Your task to perform on an android device: Go to wifi settings Image 0: 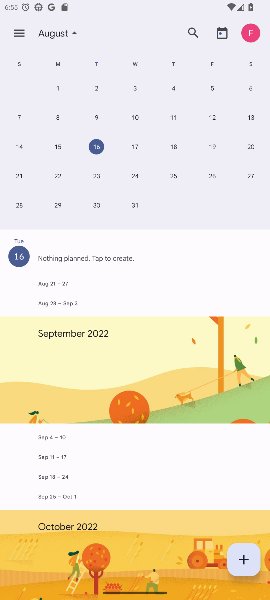
Step 0: press home button
Your task to perform on an android device: Go to wifi settings Image 1: 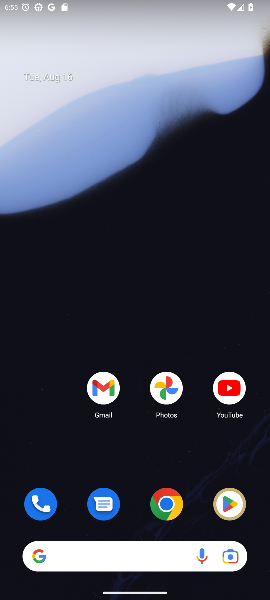
Step 1: drag from (5, 575) to (151, 217)
Your task to perform on an android device: Go to wifi settings Image 2: 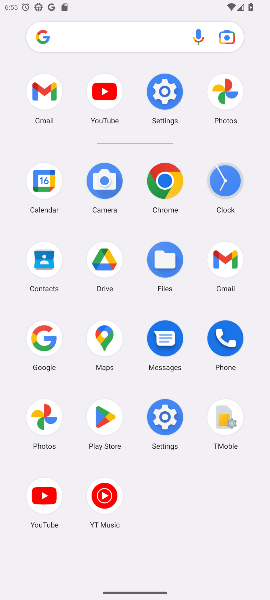
Step 2: click (161, 405)
Your task to perform on an android device: Go to wifi settings Image 3: 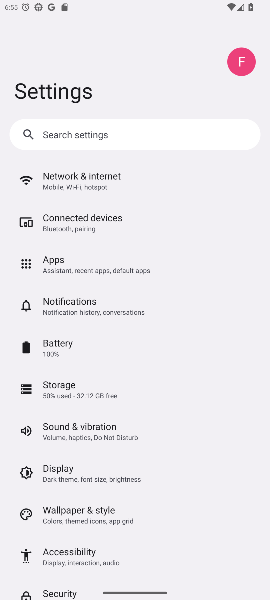
Step 3: click (80, 176)
Your task to perform on an android device: Go to wifi settings Image 4: 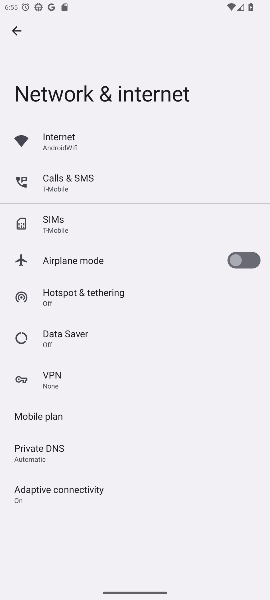
Step 4: click (65, 136)
Your task to perform on an android device: Go to wifi settings Image 5: 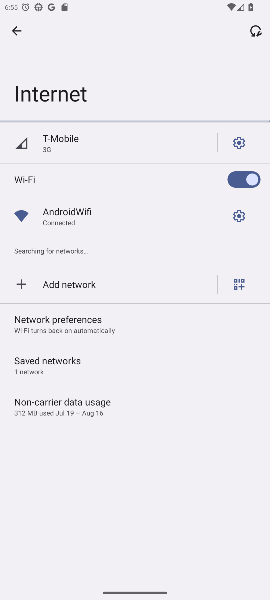
Step 5: task complete